Your task to perform on an android device: toggle javascript in the chrome app Image 0: 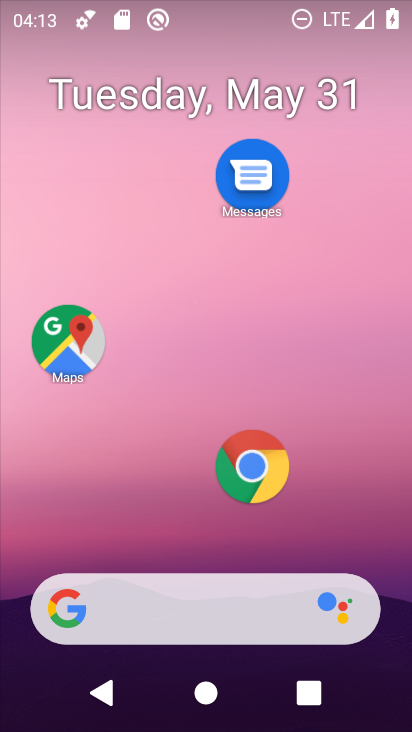
Step 0: click (240, 460)
Your task to perform on an android device: toggle javascript in the chrome app Image 1: 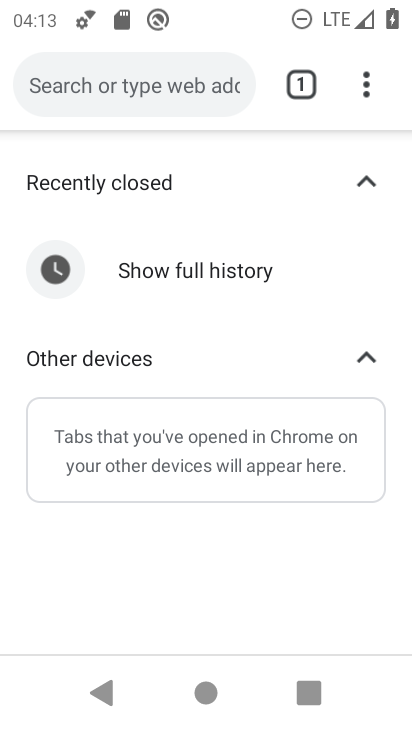
Step 1: drag from (367, 90) to (89, 516)
Your task to perform on an android device: toggle javascript in the chrome app Image 2: 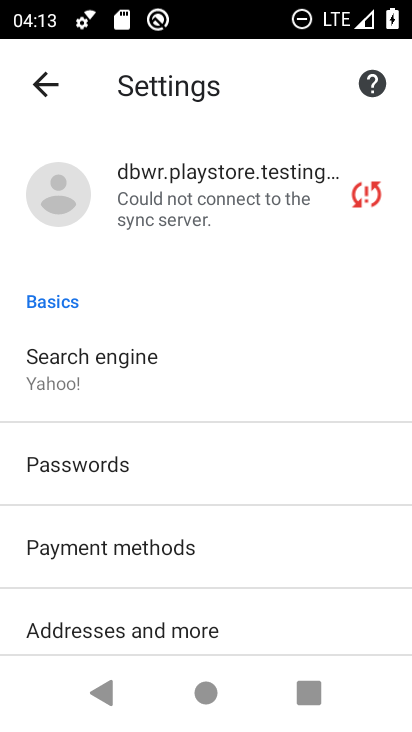
Step 2: drag from (137, 594) to (241, 152)
Your task to perform on an android device: toggle javascript in the chrome app Image 3: 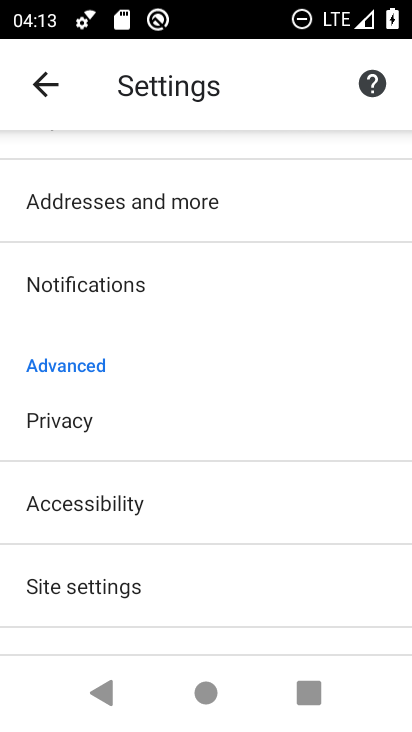
Step 3: click (128, 584)
Your task to perform on an android device: toggle javascript in the chrome app Image 4: 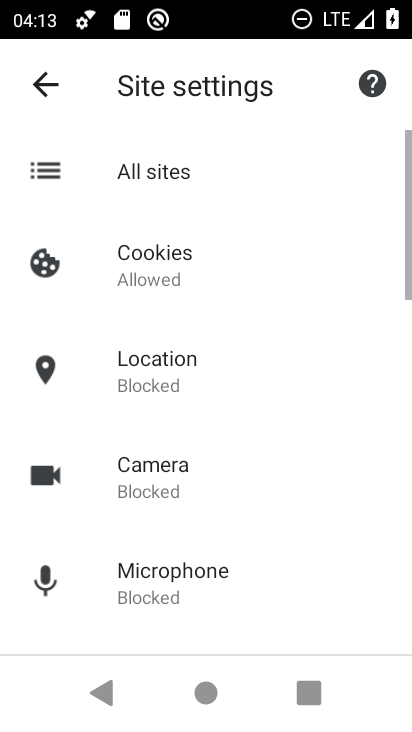
Step 4: drag from (143, 585) to (231, 155)
Your task to perform on an android device: toggle javascript in the chrome app Image 5: 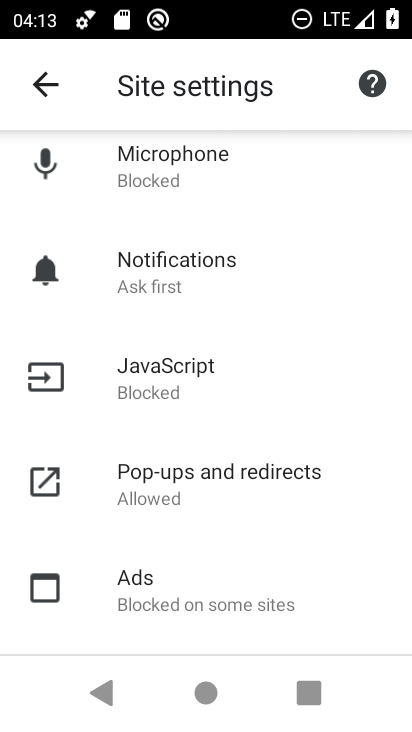
Step 5: click (157, 388)
Your task to perform on an android device: toggle javascript in the chrome app Image 6: 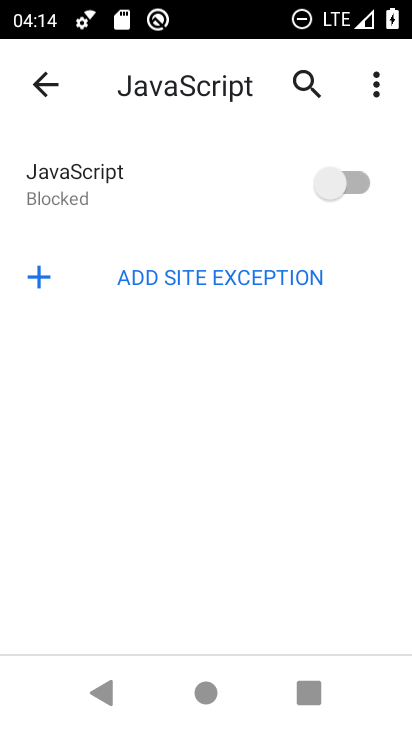
Step 6: click (339, 183)
Your task to perform on an android device: toggle javascript in the chrome app Image 7: 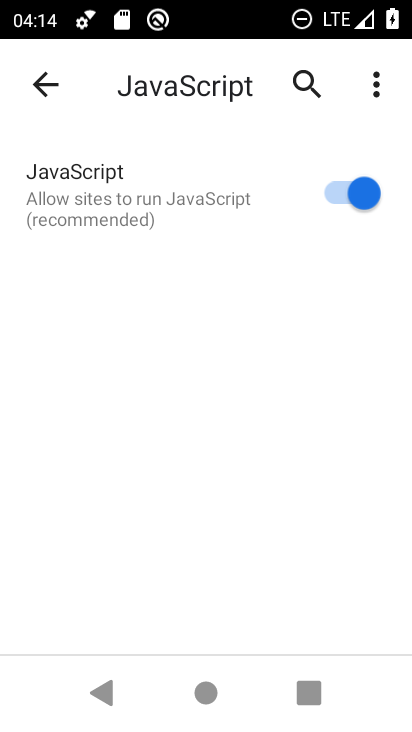
Step 7: task complete